Your task to perform on an android device: toggle wifi Image 0: 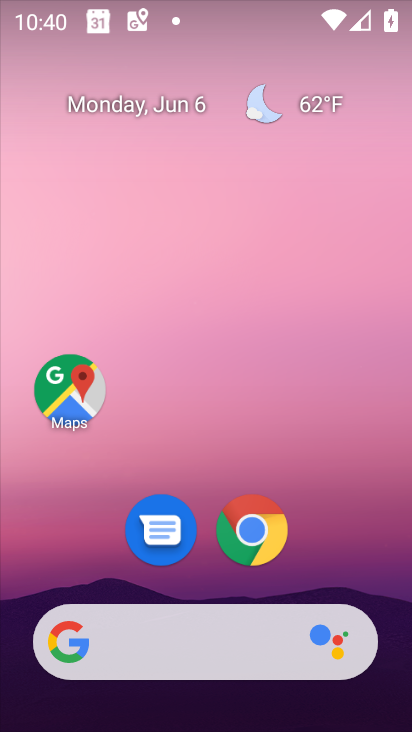
Step 0: drag from (332, 585) to (288, 92)
Your task to perform on an android device: toggle wifi Image 1: 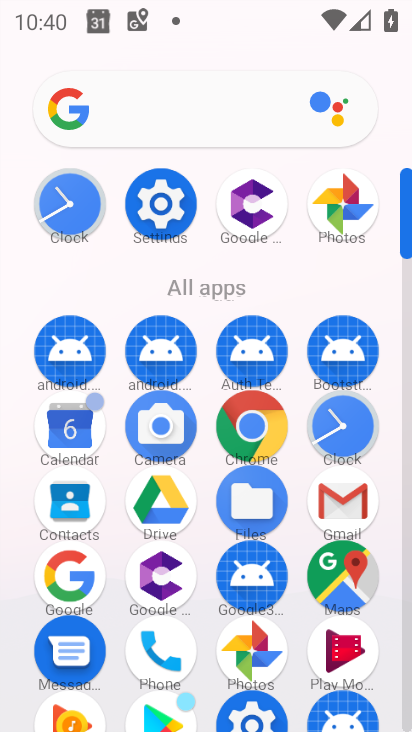
Step 1: click (164, 201)
Your task to perform on an android device: toggle wifi Image 2: 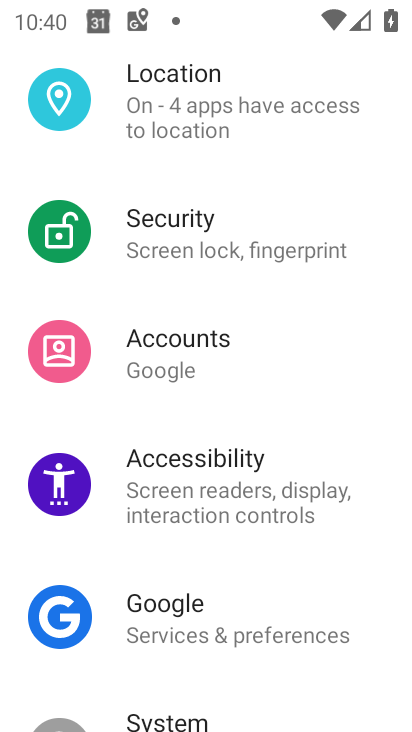
Step 2: drag from (179, 132) to (223, 605)
Your task to perform on an android device: toggle wifi Image 3: 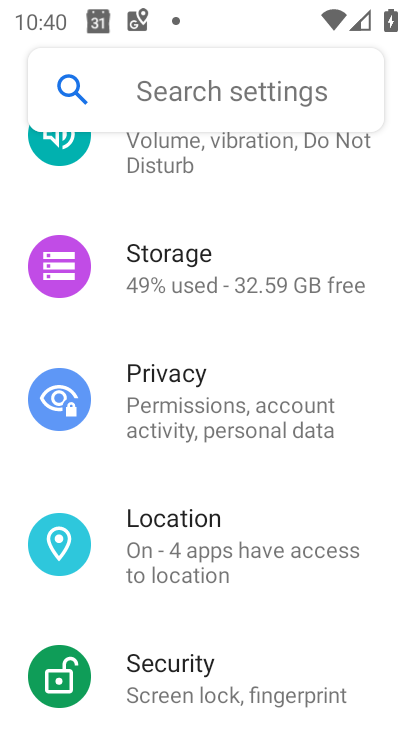
Step 3: drag from (207, 210) to (227, 613)
Your task to perform on an android device: toggle wifi Image 4: 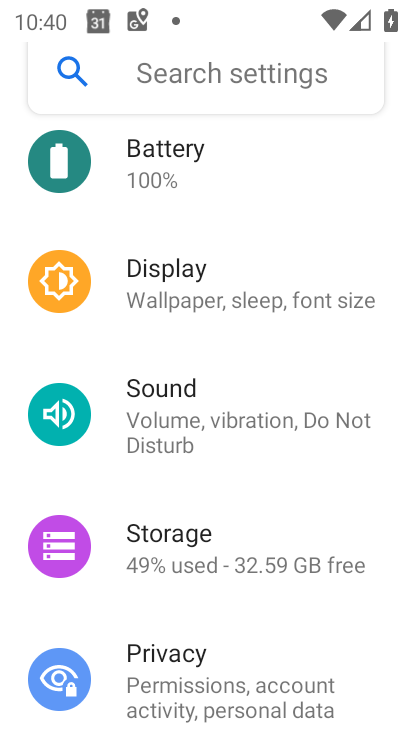
Step 4: drag from (211, 240) to (240, 575)
Your task to perform on an android device: toggle wifi Image 5: 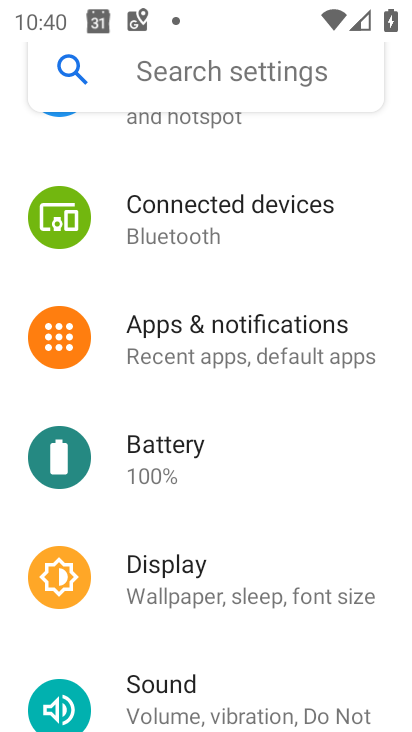
Step 5: drag from (160, 185) to (188, 556)
Your task to perform on an android device: toggle wifi Image 6: 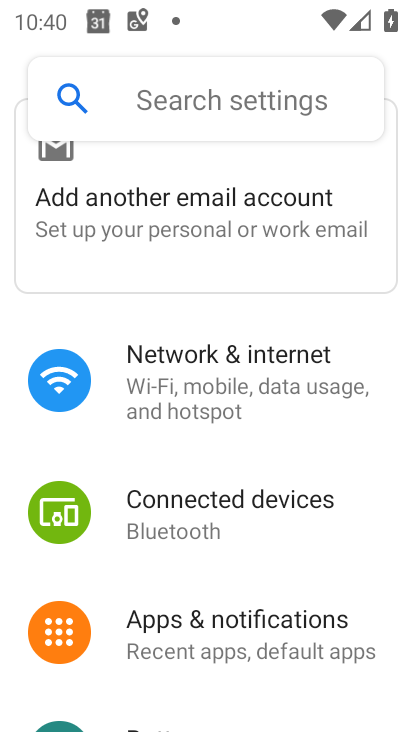
Step 6: click (201, 374)
Your task to perform on an android device: toggle wifi Image 7: 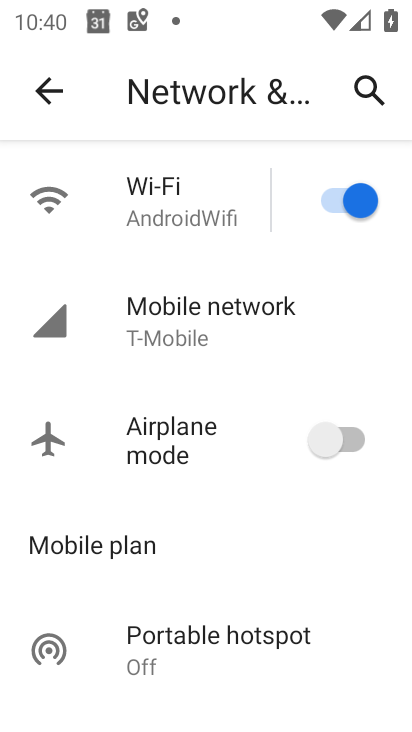
Step 7: click (351, 198)
Your task to perform on an android device: toggle wifi Image 8: 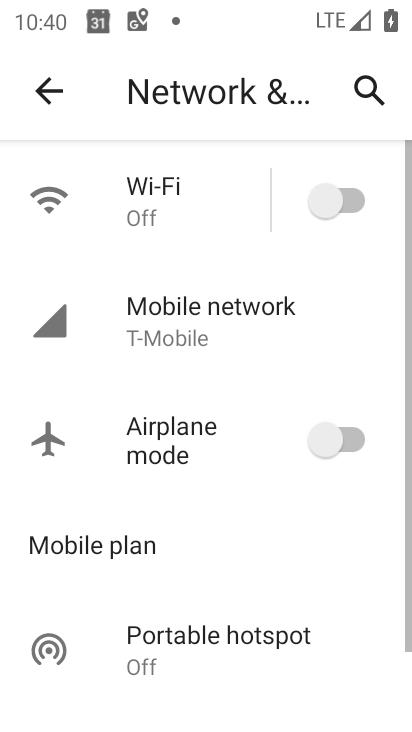
Step 8: task complete